Your task to perform on an android device: Open Google Chrome and click the shortcut for Amazon.com Image 0: 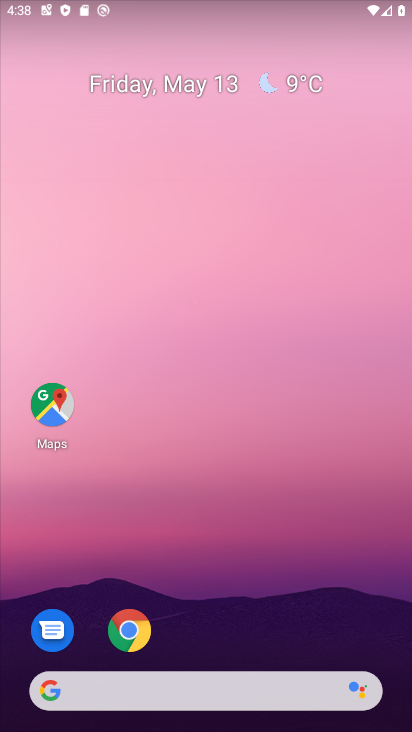
Step 0: drag from (243, 498) to (211, 26)
Your task to perform on an android device: Open Google Chrome and click the shortcut for Amazon.com Image 1: 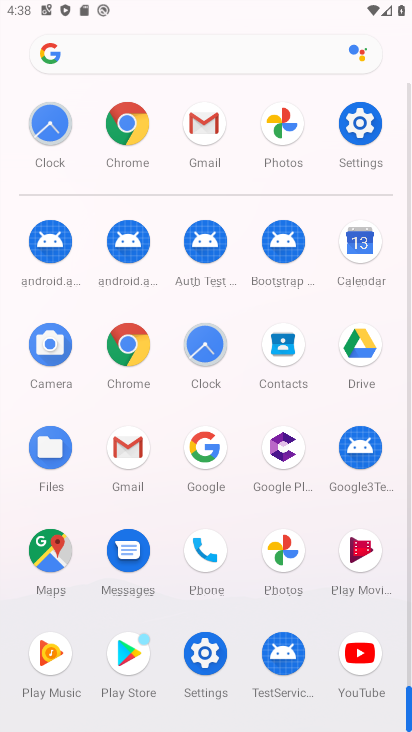
Step 1: drag from (8, 574) to (20, 204)
Your task to perform on an android device: Open Google Chrome and click the shortcut for Amazon.com Image 2: 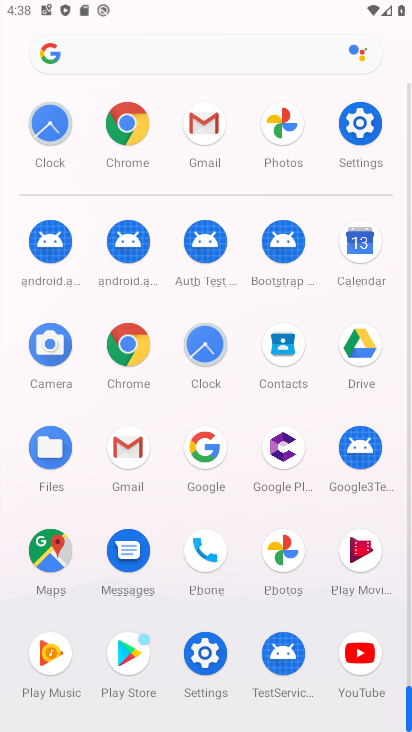
Step 2: click (128, 341)
Your task to perform on an android device: Open Google Chrome and click the shortcut for Amazon.com Image 3: 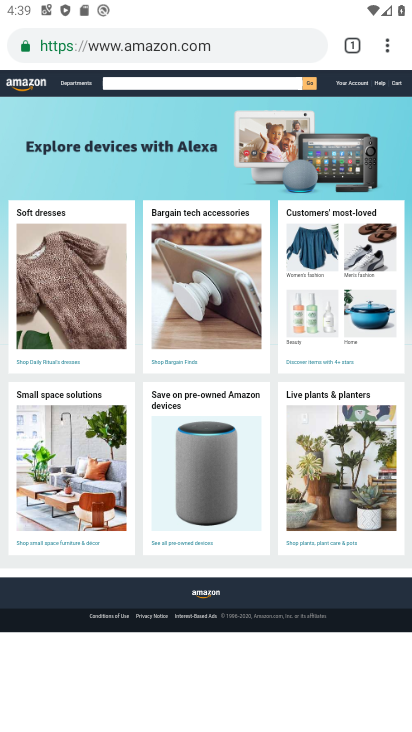
Step 3: drag from (387, 44) to (288, 457)
Your task to perform on an android device: Open Google Chrome and click the shortcut for Amazon.com Image 4: 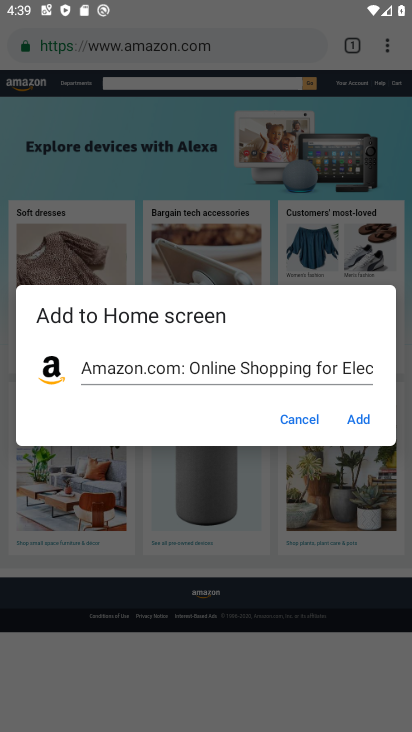
Step 4: click (357, 421)
Your task to perform on an android device: Open Google Chrome and click the shortcut for Amazon.com Image 5: 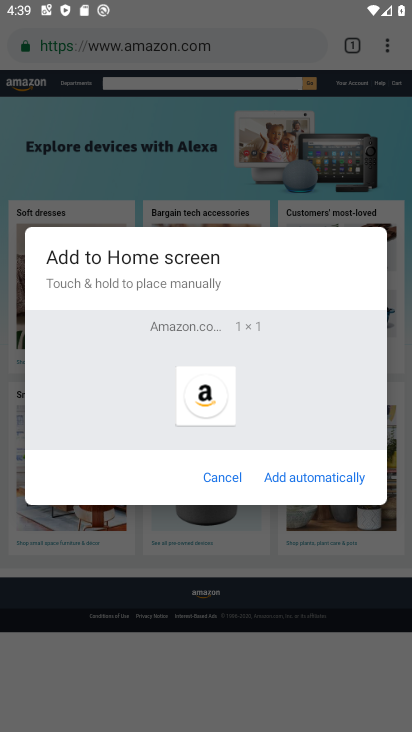
Step 5: click (317, 476)
Your task to perform on an android device: Open Google Chrome and click the shortcut for Amazon.com Image 6: 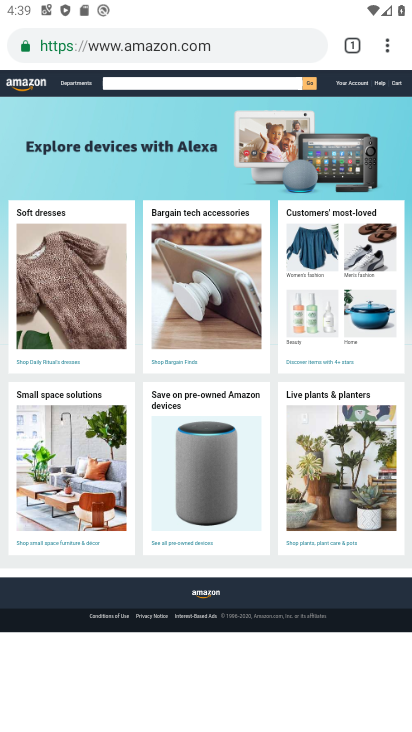
Step 6: task complete